Your task to perform on an android device: Go to network settings Image 0: 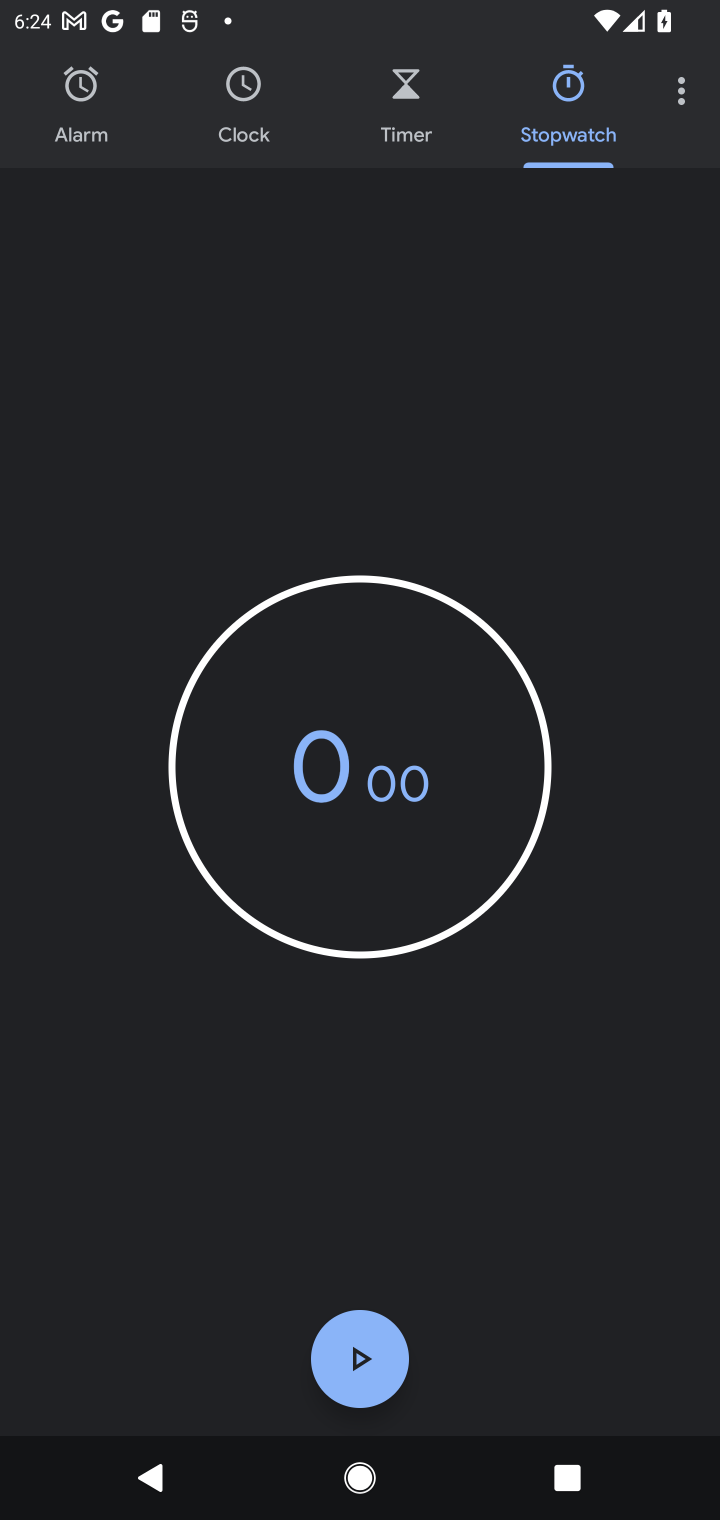
Step 0: press home button
Your task to perform on an android device: Go to network settings Image 1: 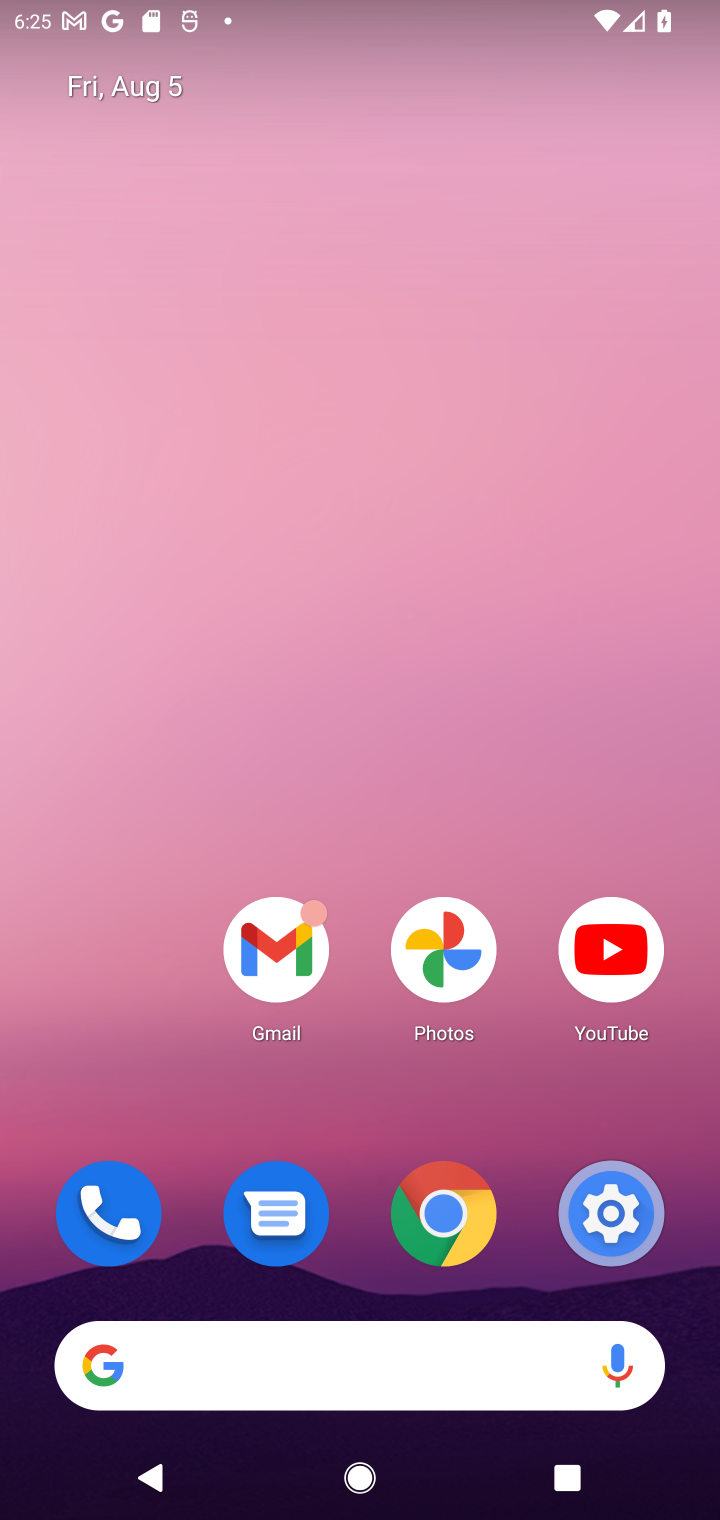
Step 1: click (591, 1211)
Your task to perform on an android device: Go to network settings Image 2: 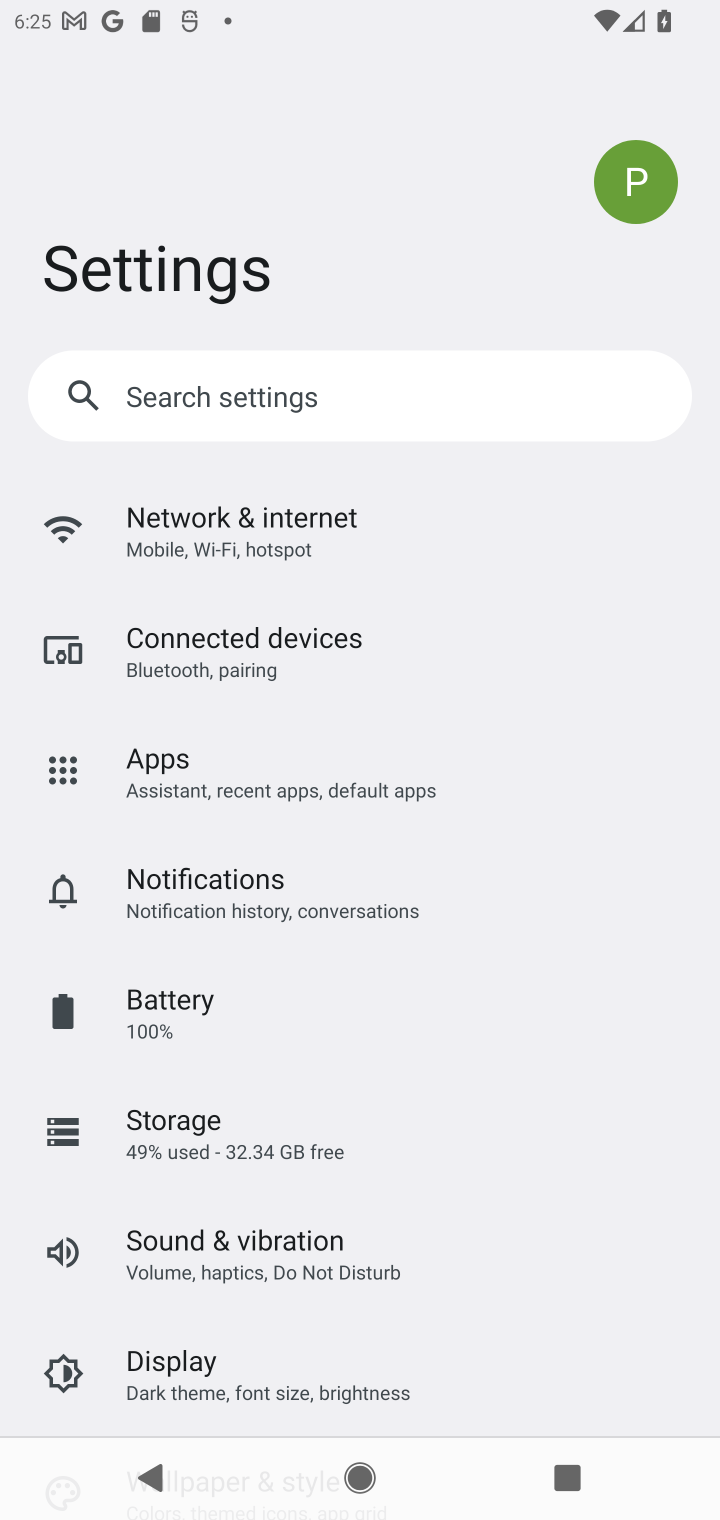
Step 2: click (178, 570)
Your task to perform on an android device: Go to network settings Image 3: 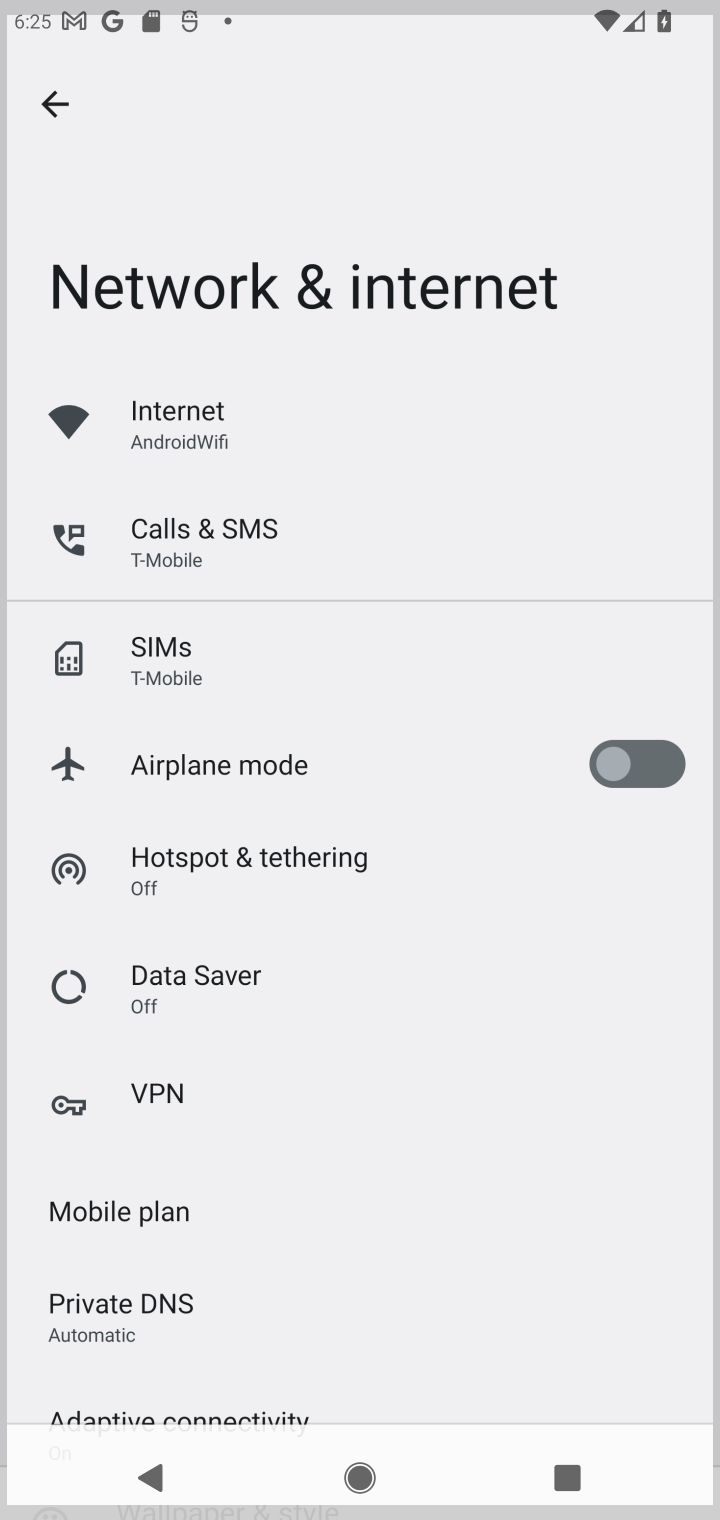
Step 3: task complete